Your task to perform on an android device: allow notifications from all sites in the chrome app Image 0: 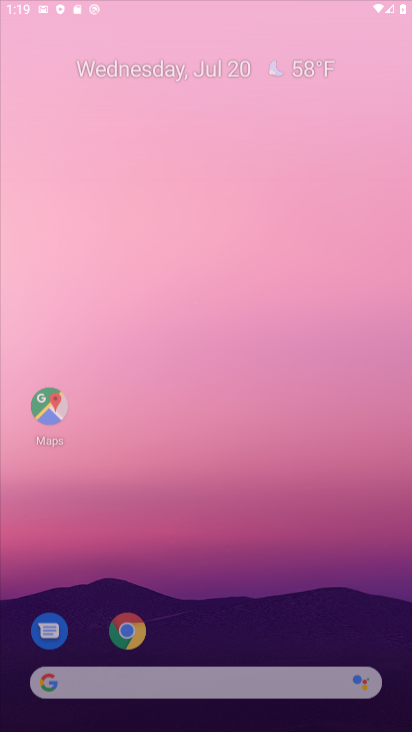
Step 0: drag from (187, 627) to (149, 161)
Your task to perform on an android device: allow notifications from all sites in the chrome app Image 1: 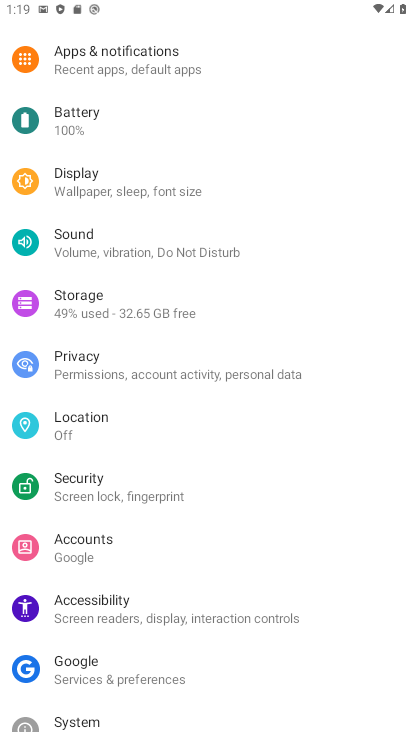
Step 1: press home button
Your task to perform on an android device: allow notifications from all sites in the chrome app Image 2: 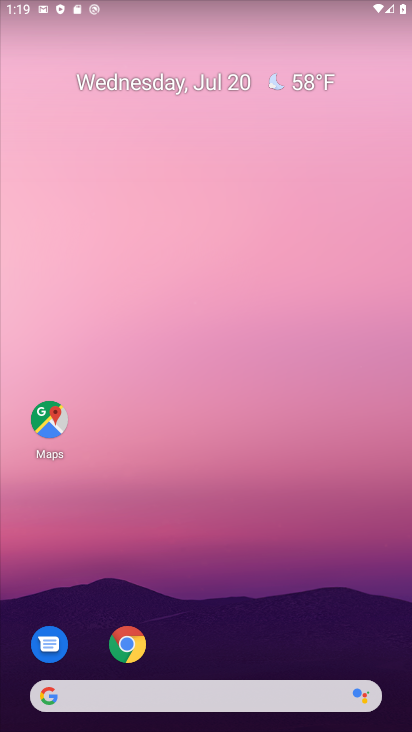
Step 2: click (133, 648)
Your task to perform on an android device: allow notifications from all sites in the chrome app Image 3: 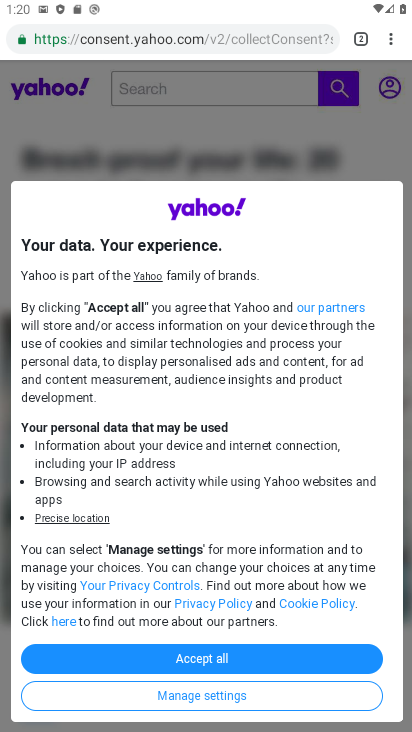
Step 3: click (385, 36)
Your task to perform on an android device: allow notifications from all sites in the chrome app Image 4: 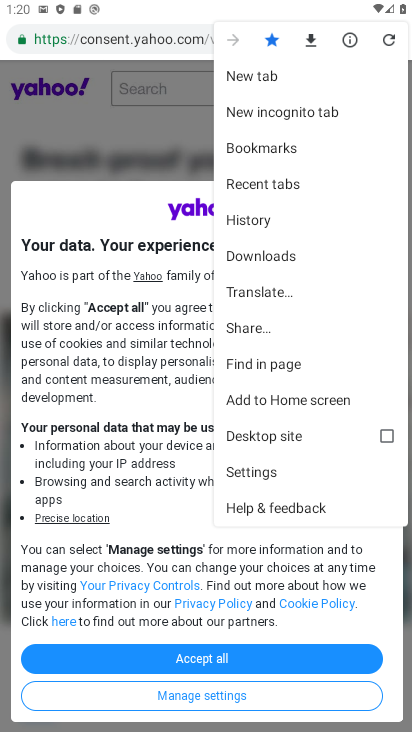
Step 4: click (253, 475)
Your task to perform on an android device: allow notifications from all sites in the chrome app Image 5: 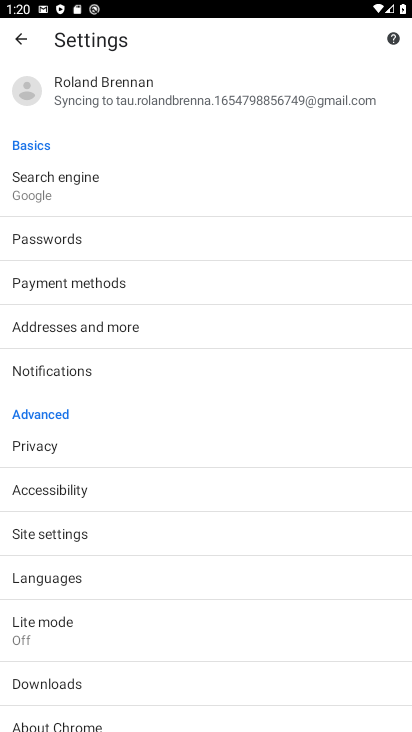
Step 5: click (68, 533)
Your task to perform on an android device: allow notifications from all sites in the chrome app Image 6: 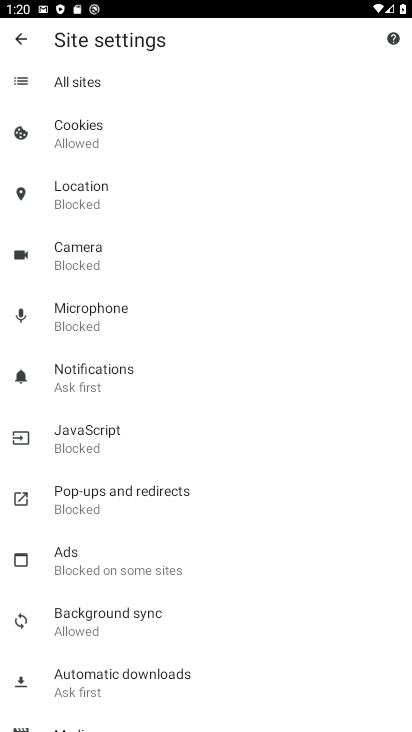
Step 6: click (94, 372)
Your task to perform on an android device: allow notifications from all sites in the chrome app Image 7: 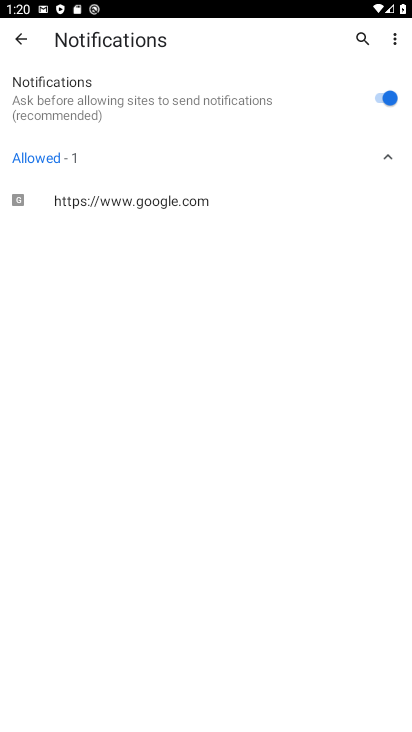
Step 7: task complete